Your task to perform on an android device: change the clock style Image 0: 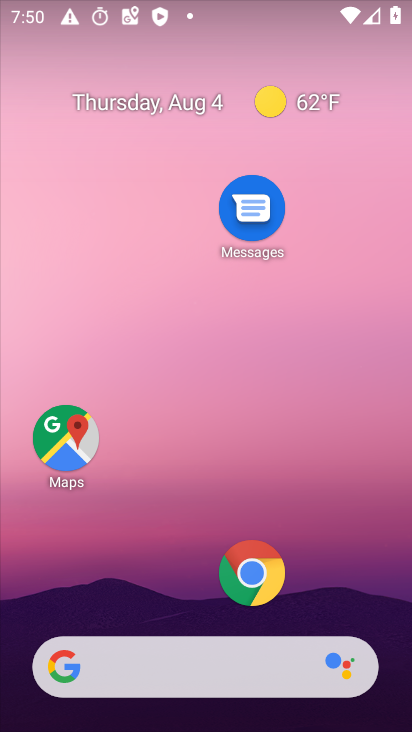
Step 0: press home button
Your task to perform on an android device: change the clock style Image 1: 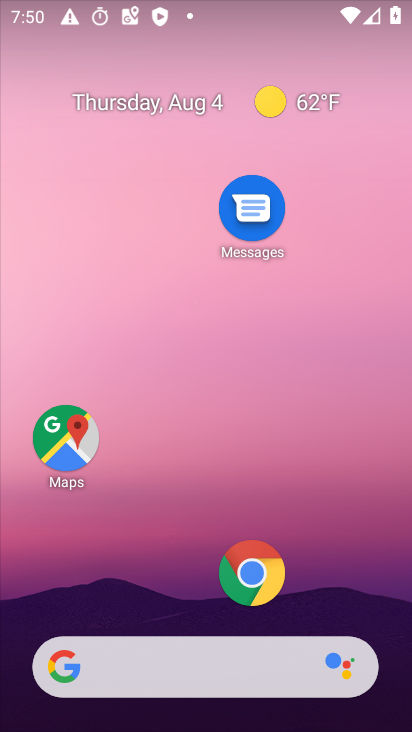
Step 1: drag from (156, 613) to (163, 55)
Your task to perform on an android device: change the clock style Image 2: 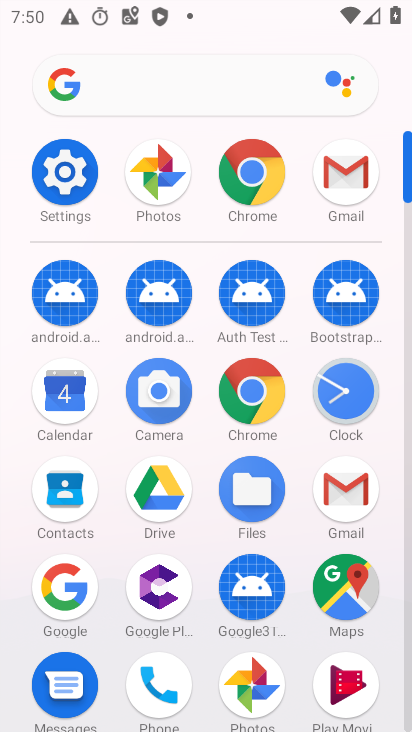
Step 2: click (349, 405)
Your task to perform on an android device: change the clock style Image 3: 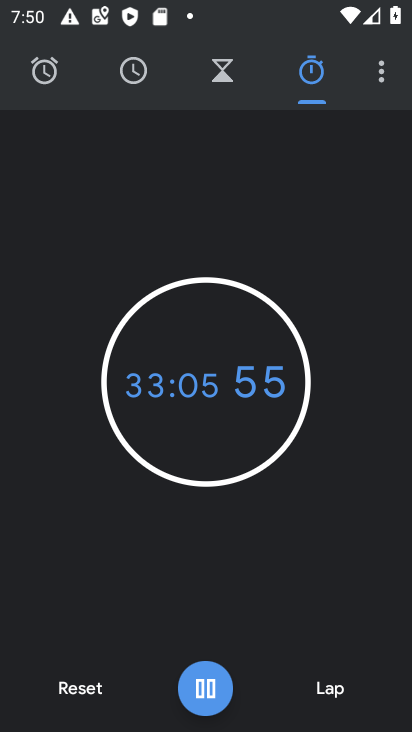
Step 3: click (386, 68)
Your task to perform on an android device: change the clock style Image 4: 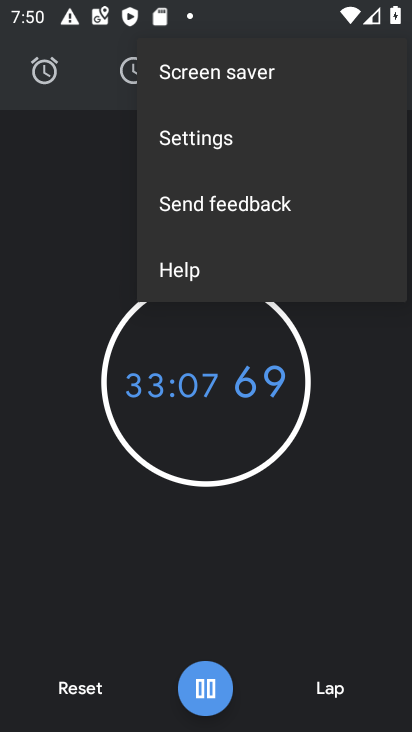
Step 4: click (191, 143)
Your task to perform on an android device: change the clock style Image 5: 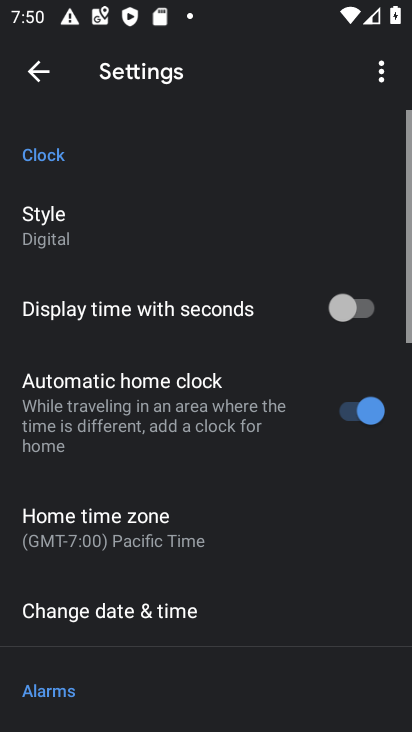
Step 5: click (57, 244)
Your task to perform on an android device: change the clock style Image 6: 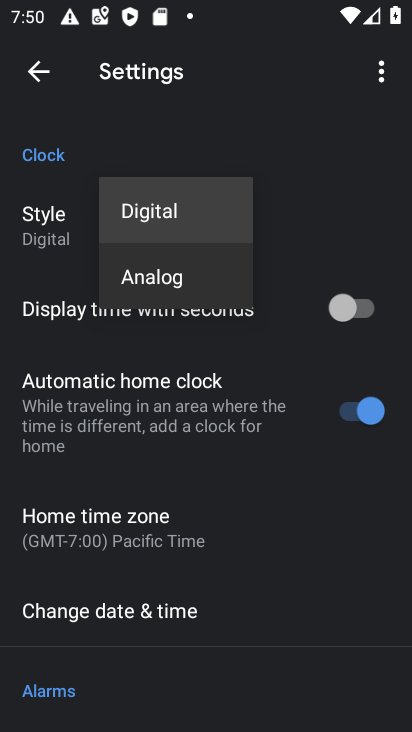
Step 6: click (146, 290)
Your task to perform on an android device: change the clock style Image 7: 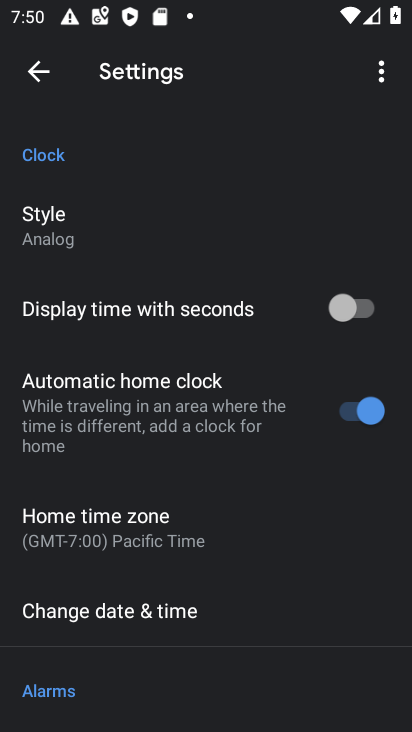
Step 7: task complete